Your task to perform on an android device: Go to location settings Image 0: 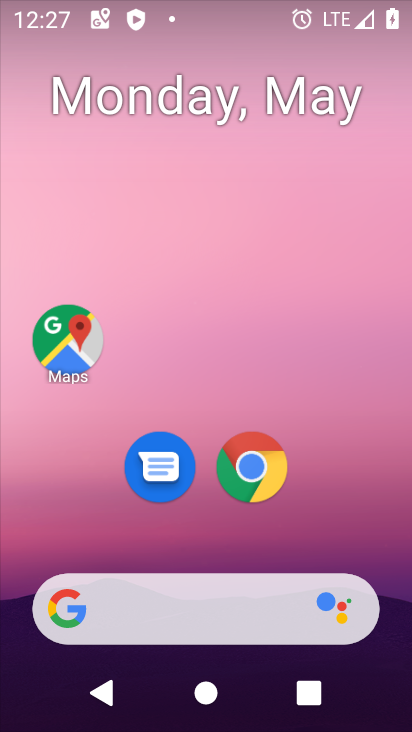
Step 0: drag from (378, 557) to (375, 1)
Your task to perform on an android device: Go to location settings Image 1: 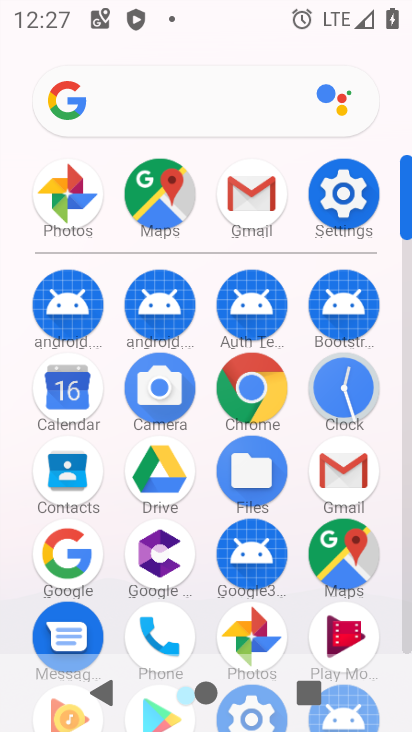
Step 1: click (343, 197)
Your task to perform on an android device: Go to location settings Image 2: 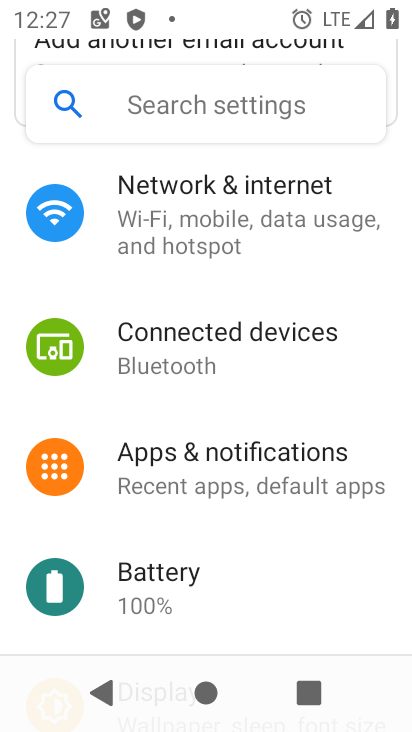
Step 2: drag from (335, 587) to (291, 104)
Your task to perform on an android device: Go to location settings Image 3: 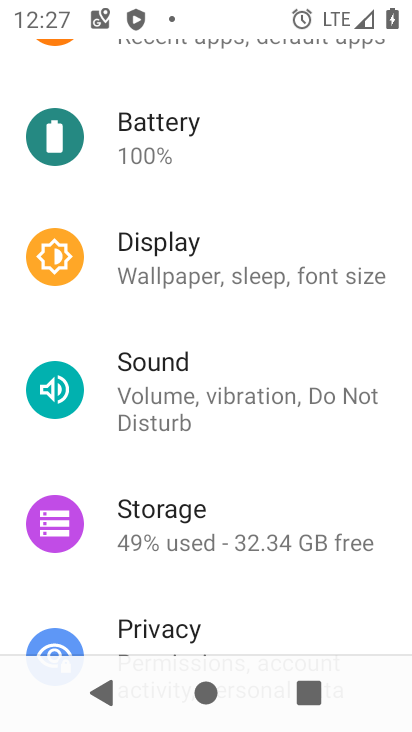
Step 3: drag from (319, 503) to (303, 175)
Your task to perform on an android device: Go to location settings Image 4: 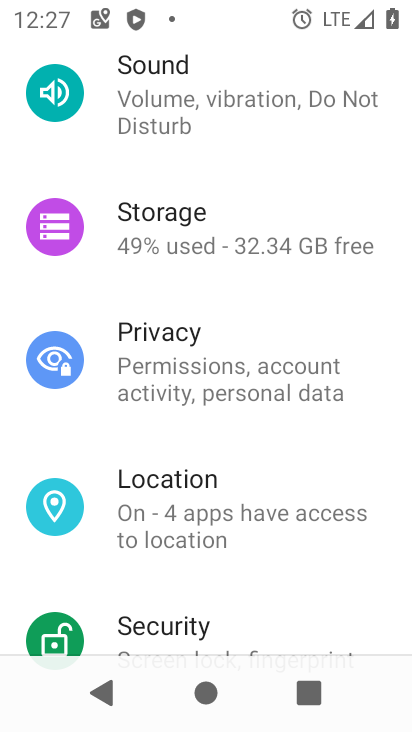
Step 4: click (141, 525)
Your task to perform on an android device: Go to location settings Image 5: 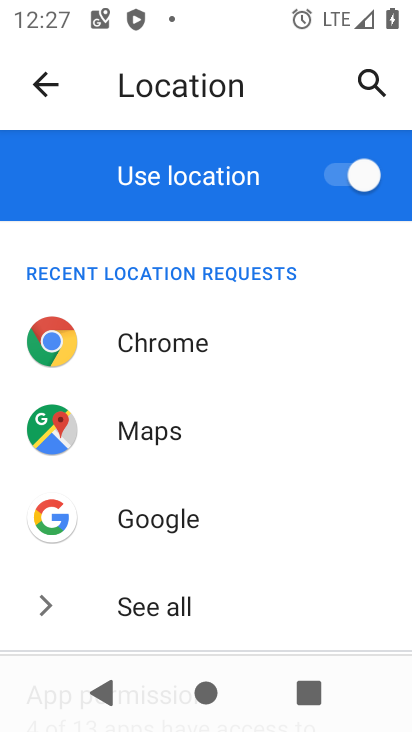
Step 5: task complete